Your task to perform on an android device: Go to battery settings Image 0: 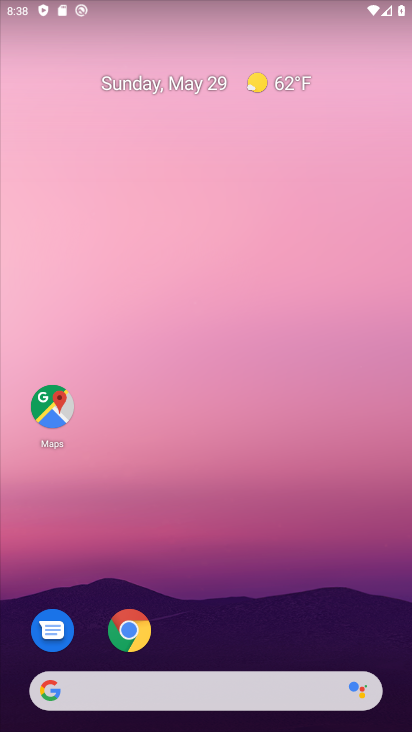
Step 0: drag from (392, 679) to (310, 227)
Your task to perform on an android device: Go to battery settings Image 1: 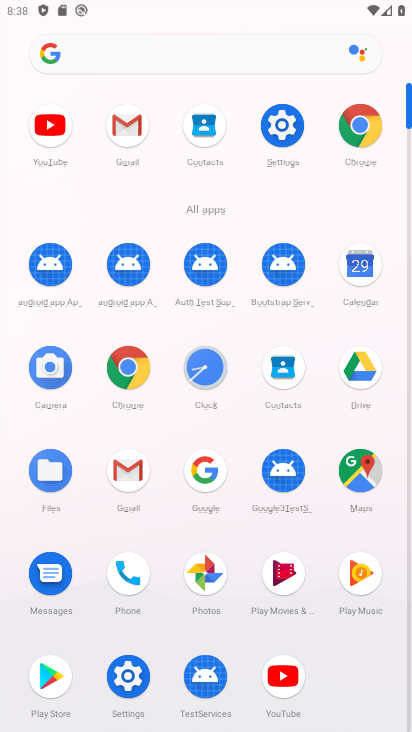
Step 1: click (286, 134)
Your task to perform on an android device: Go to battery settings Image 2: 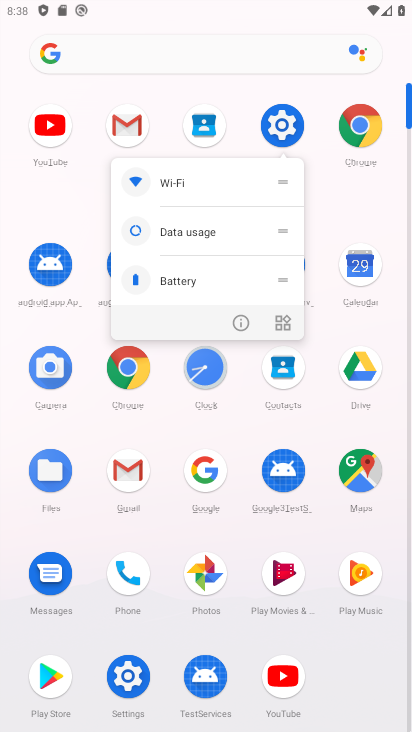
Step 2: click (271, 128)
Your task to perform on an android device: Go to battery settings Image 3: 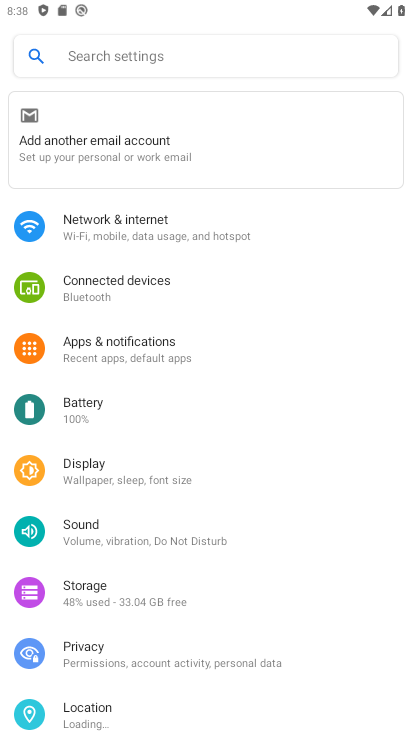
Step 3: click (86, 414)
Your task to perform on an android device: Go to battery settings Image 4: 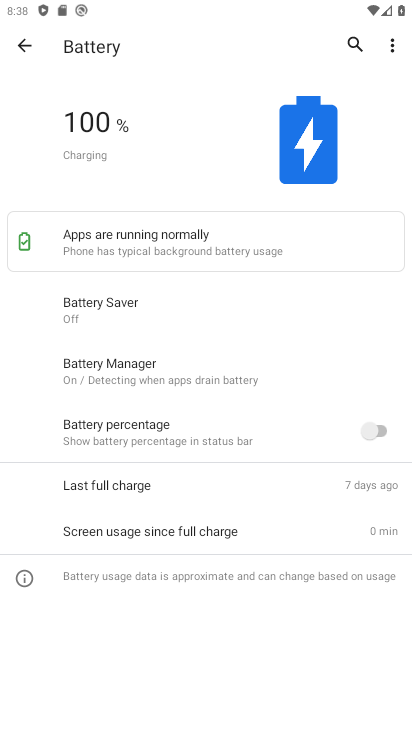
Step 4: click (391, 36)
Your task to perform on an android device: Go to battery settings Image 5: 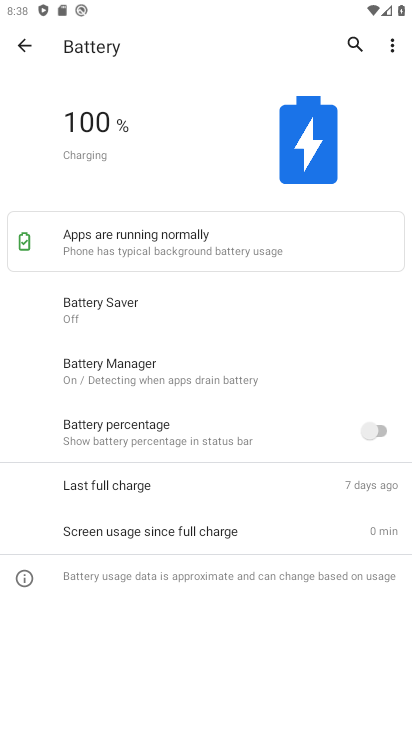
Step 5: task complete